Your task to perform on an android device: Show me productivity apps on the Play Store Image 0: 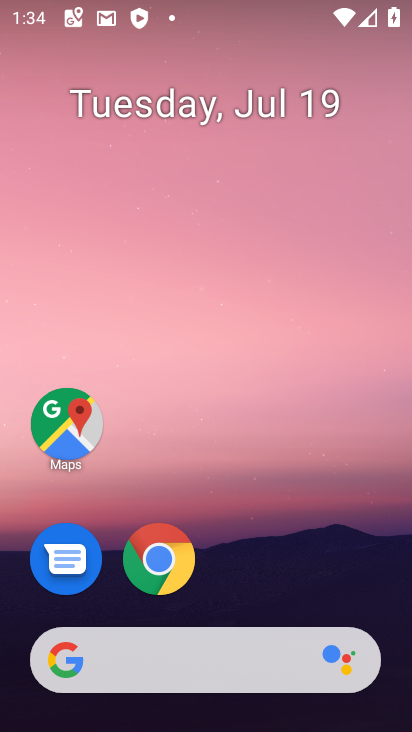
Step 0: drag from (165, 639) to (152, 78)
Your task to perform on an android device: Show me productivity apps on the Play Store Image 1: 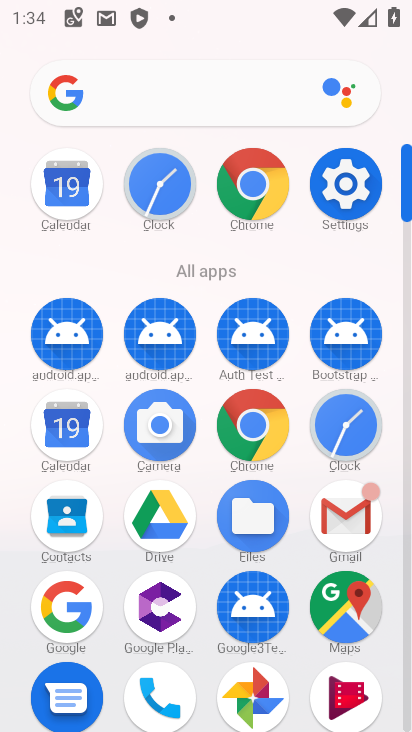
Step 1: drag from (207, 665) to (190, 278)
Your task to perform on an android device: Show me productivity apps on the Play Store Image 2: 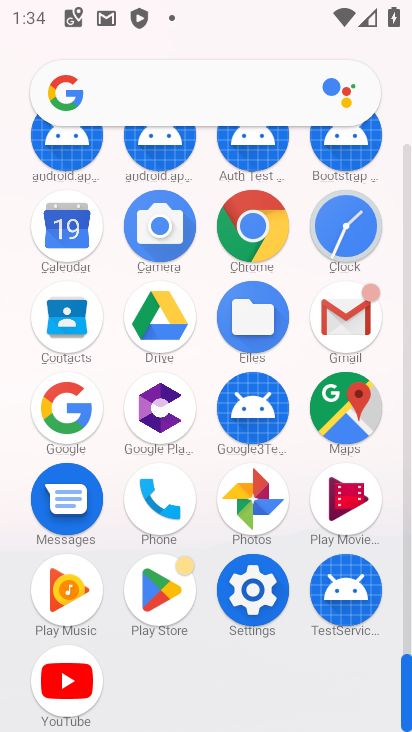
Step 2: click (150, 591)
Your task to perform on an android device: Show me productivity apps on the Play Store Image 3: 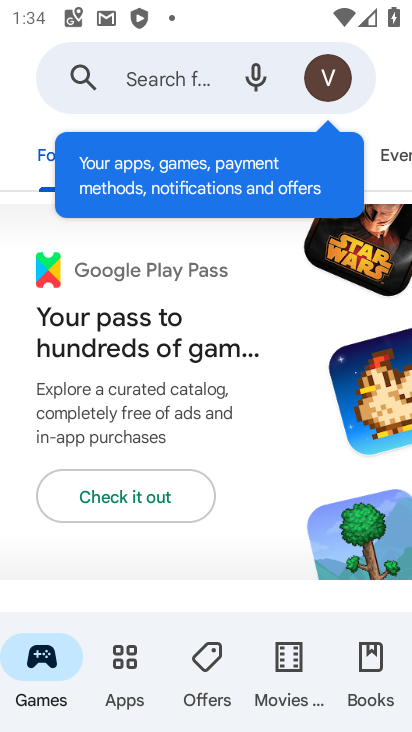
Step 3: drag from (175, 593) to (171, 129)
Your task to perform on an android device: Show me productivity apps on the Play Store Image 4: 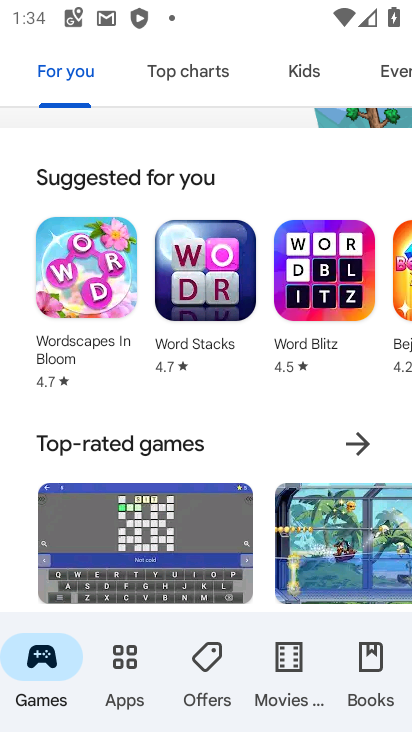
Step 4: drag from (216, 496) to (175, 215)
Your task to perform on an android device: Show me productivity apps on the Play Store Image 5: 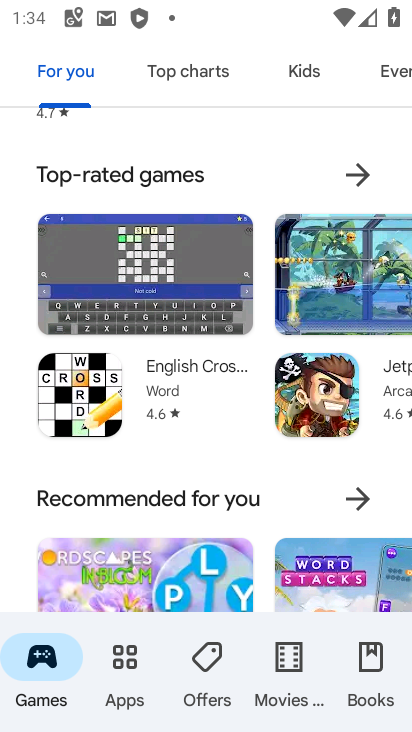
Step 5: click (110, 657)
Your task to perform on an android device: Show me productivity apps on the Play Store Image 6: 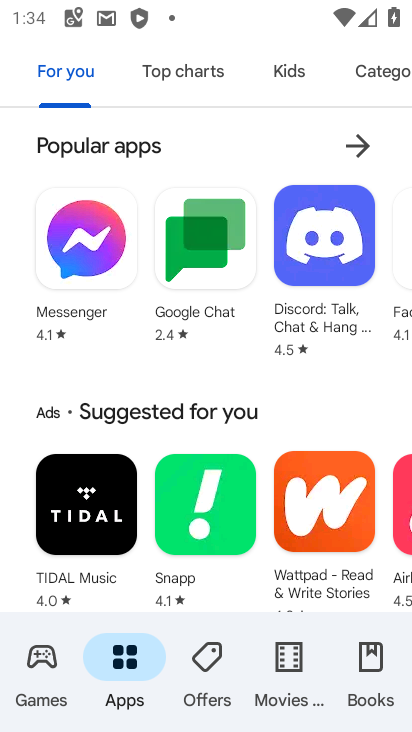
Step 6: task complete